Your task to perform on an android device: Open ESPN.com Image 0: 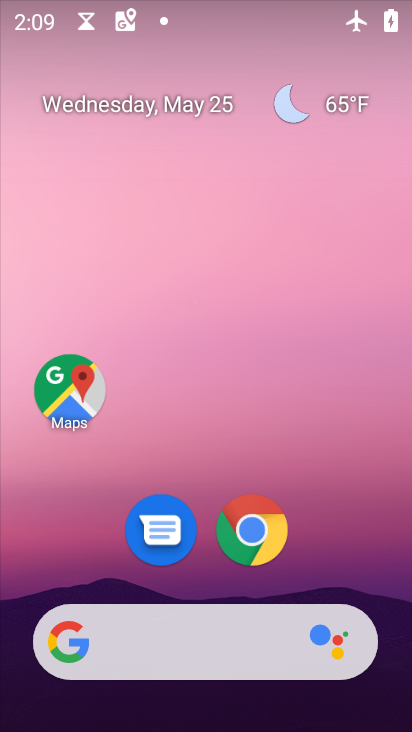
Step 0: click (243, 528)
Your task to perform on an android device: Open ESPN.com Image 1: 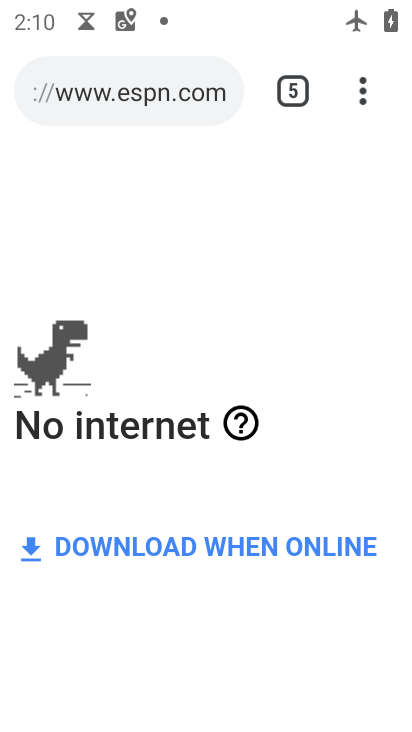
Step 1: task complete